Your task to perform on an android device: What's the weather today? Image 0: 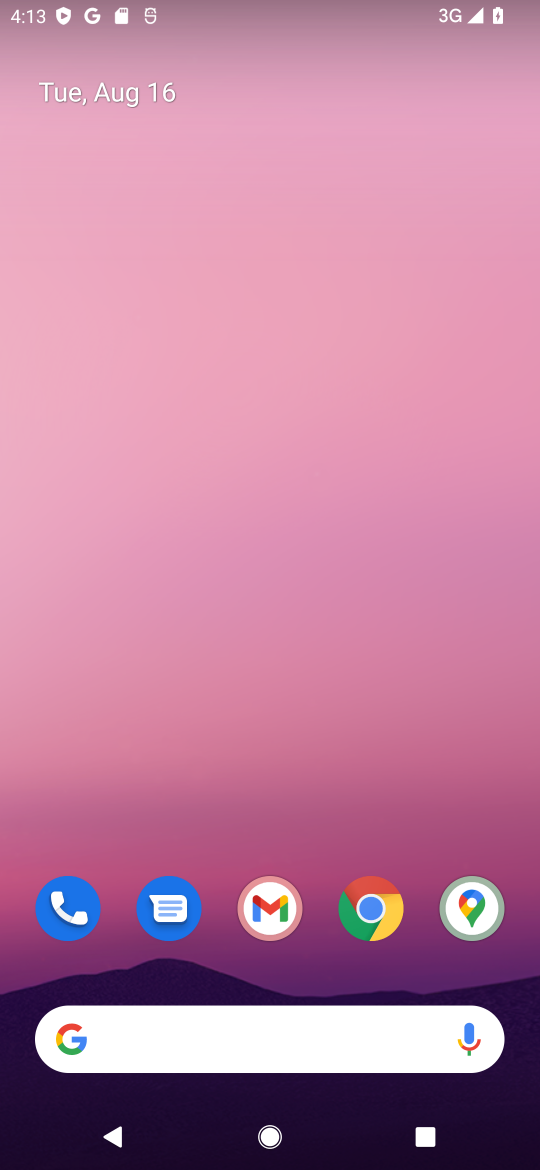
Step 0: click (218, 1042)
Your task to perform on an android device: What's the weather today? Image 1: 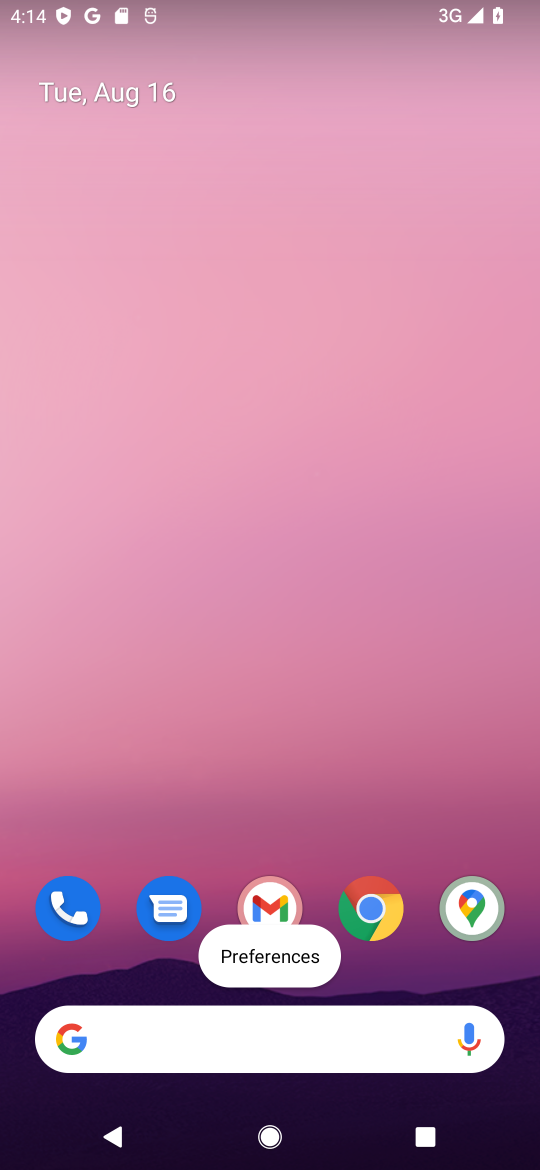
Step 1: click (245, 1039)
Your task to perform on an android device: What's the weather today? Image 2: 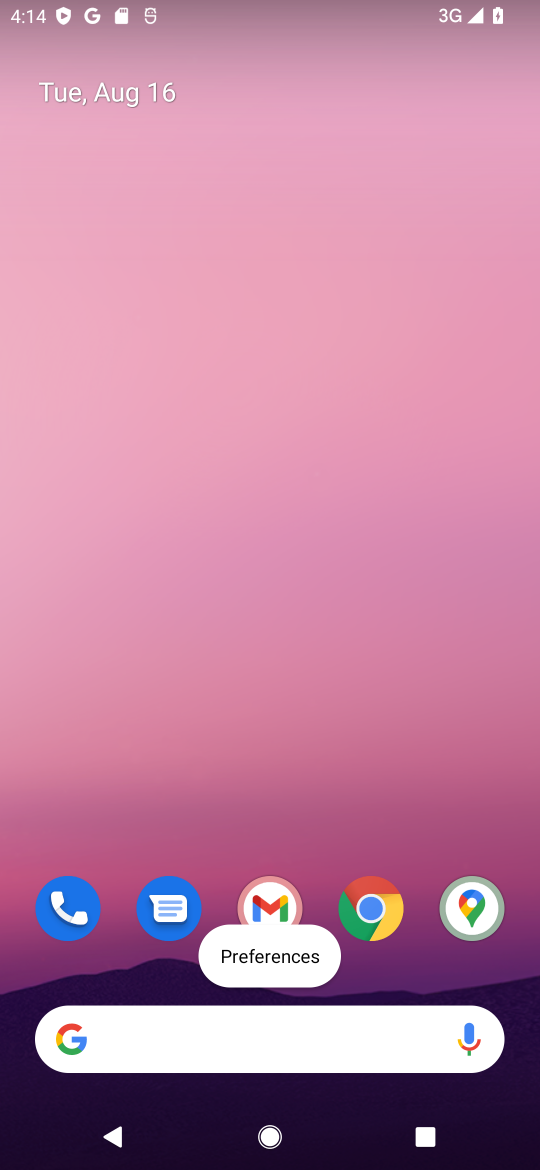
Step 2: click (254, 1030)
Your task to perform on an android device: What's the weather today? Image 3: 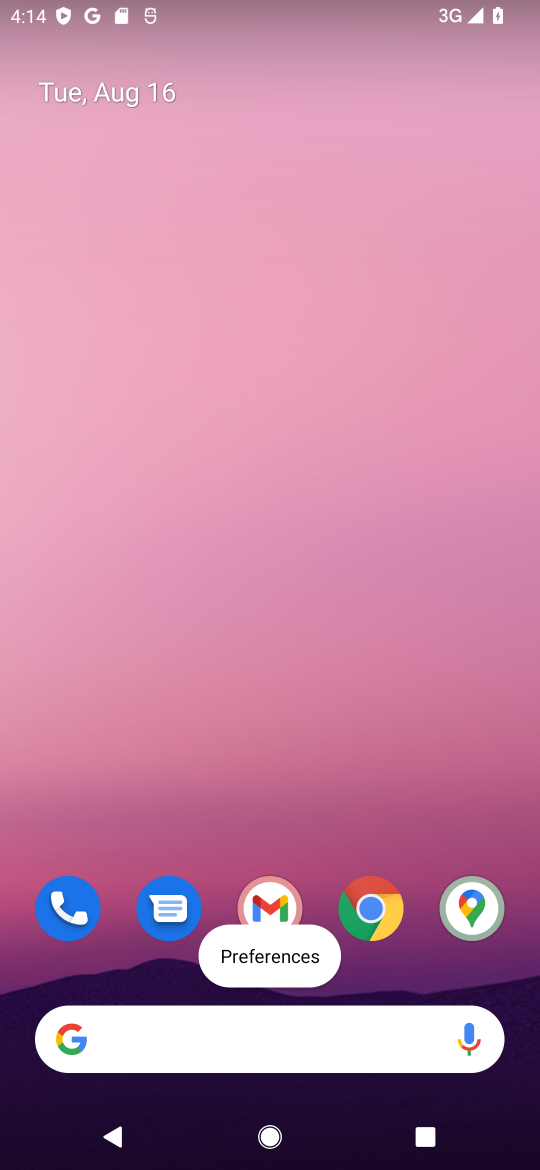
Step 3: click (222, 1040)
Your task to perform on an android device: What's the weather today? Image 4: 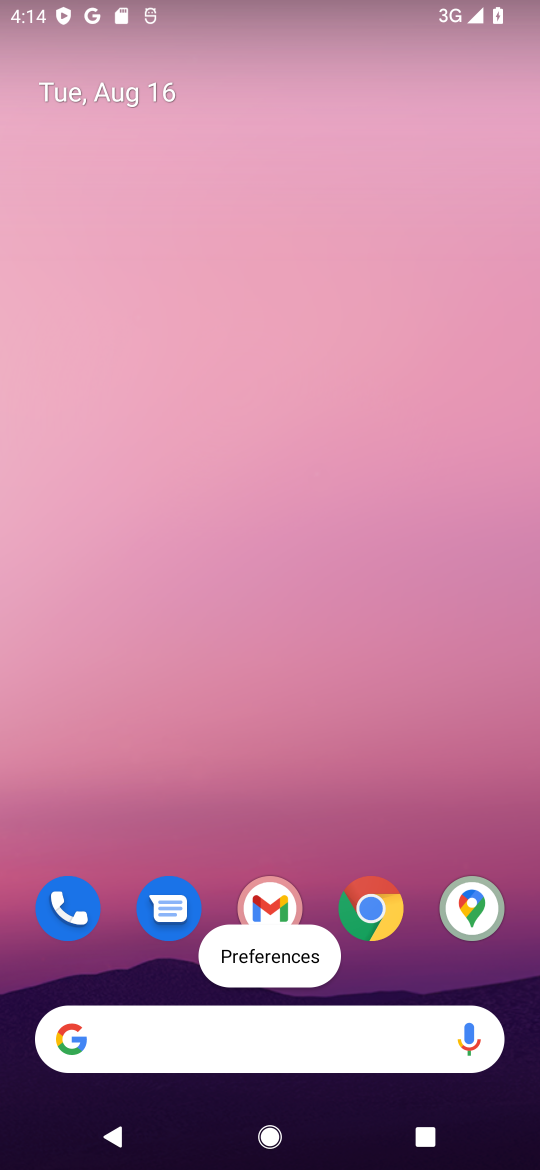
Step 4: click (190, 1043)
Your task to perform on an android device: What's the weather today? Image 5: 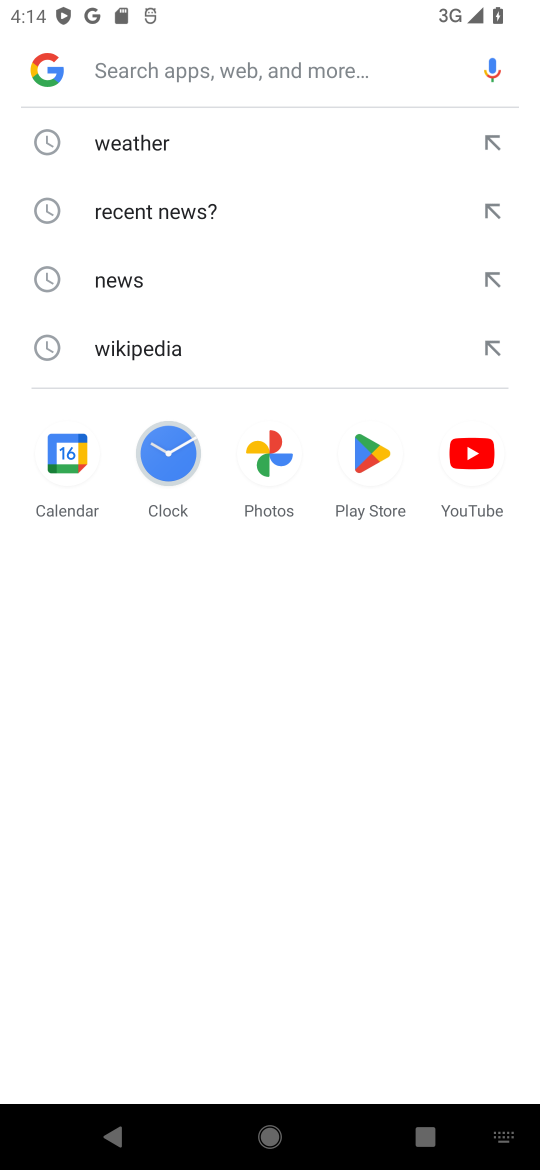
Step 5: click (163, 132)
Your task to perform on an android device: What's the weather today? Image 6: 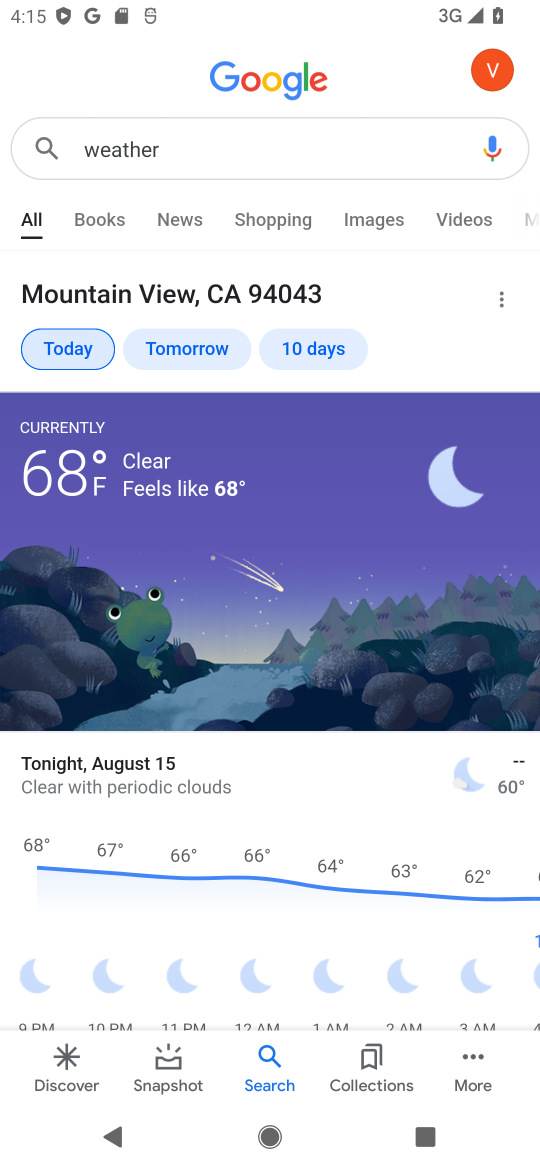
Step 6: task complete